Your task to perform on an android device: find photos in the google photos app Image 0: 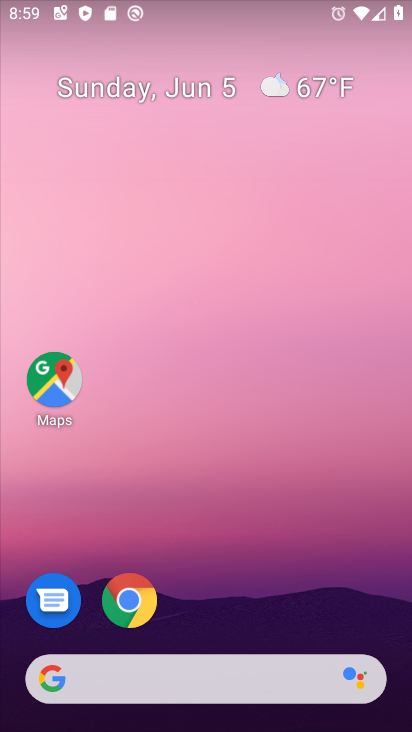
Step 0: drag from (388, 644) to (237, 74)
Your task to perform on an android device: find photos in the google photos app Image 1: 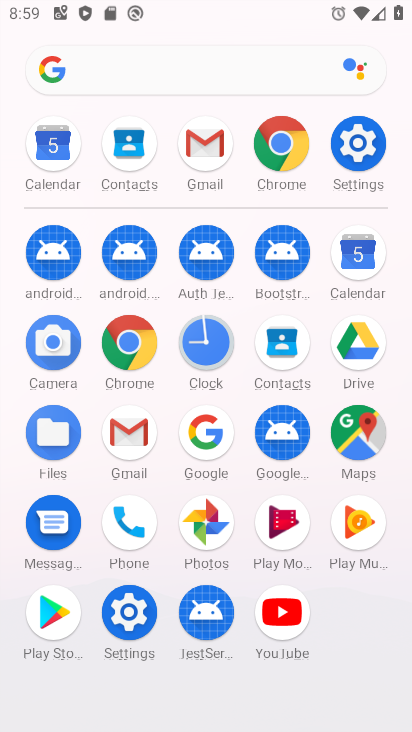
Step 1: click (209, 523)
Your task to perform on an android device: find photos in the google photos app Image 2: 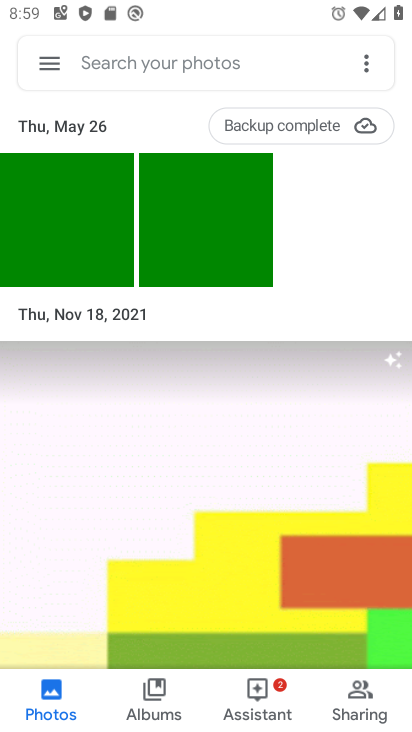
Step 2: task complete